Your task to perform on an android device: Show me popular games on the Play Store Image 0: 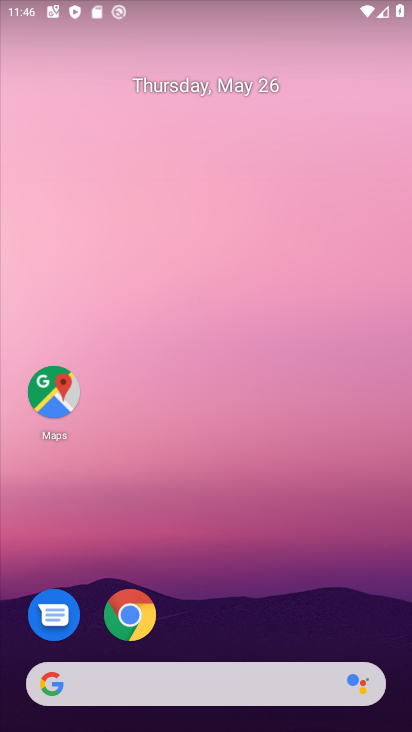
Step 0: drag from (256, 621) to (165, 67)
Your task to perform on an android device: Show me popular games on the Play Store Image 1: 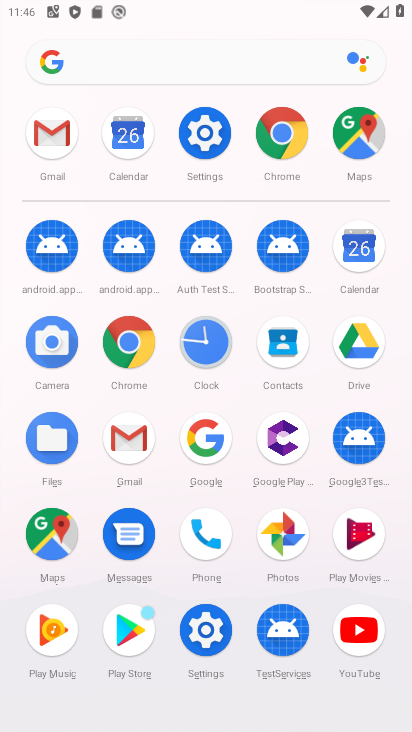
Step 1: click (127, 624)
Your task to perform on an android device: Show me popular games on the Play Store Image 2: 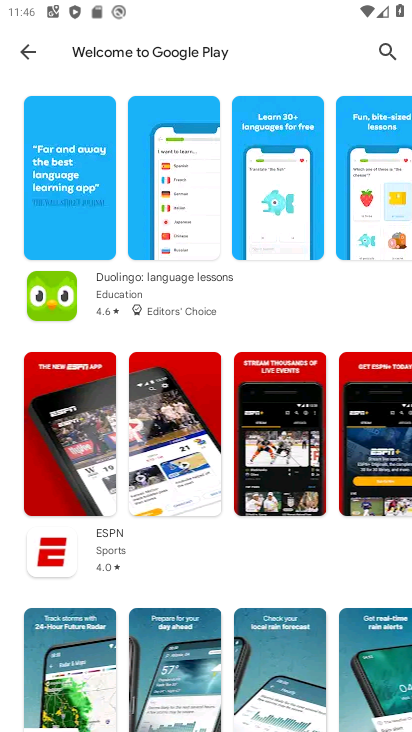
Step 2: task complete